Your task to perform on an android device: change the clock style Image 0: 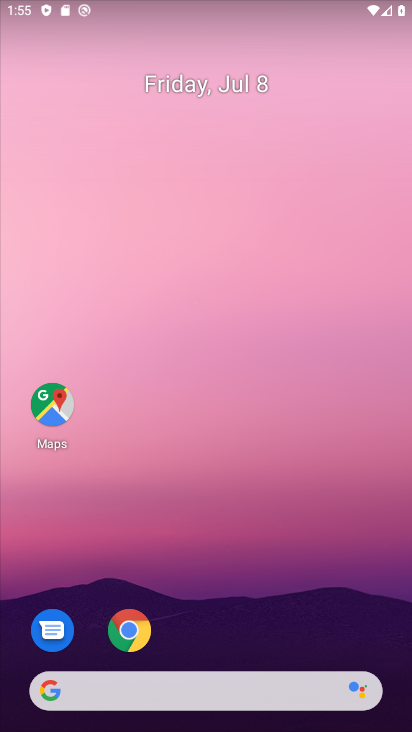
Step 0: drag from (299, 618) to (221, 132)
Your task to perform on an android device: change the clock style Image 1: 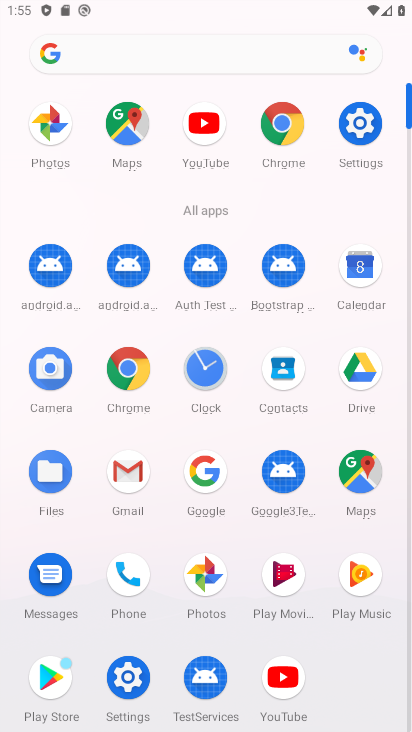
Step 1: click (202, 368)
Your task to perform on an android device: change the clock style Image 2: 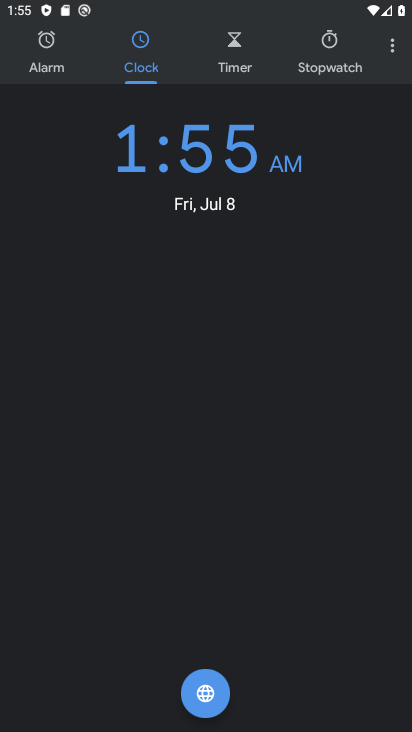
Step 2: click (394, 37)
Your task to perform on an android device: change the clock style Image 3: 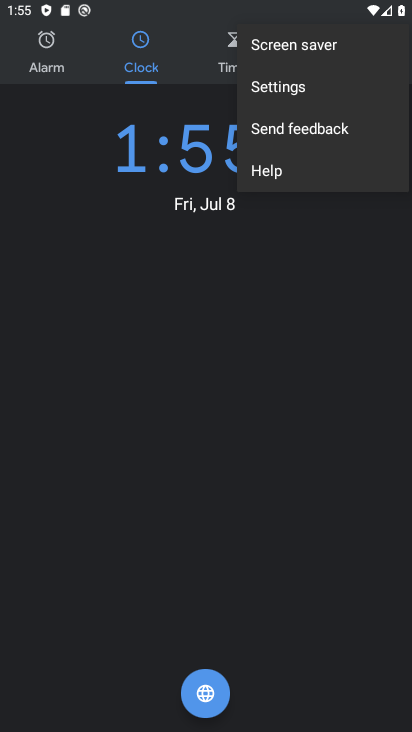
Step 3: click (285, 90)
Your task to perform on an android device: change the clock style Image 4: 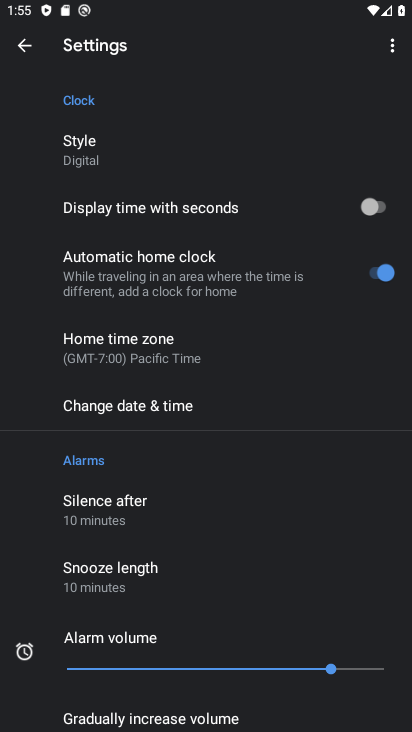
Step 4: click (87, 160)
Your task to perform on an android device: change the clock style Image 5: 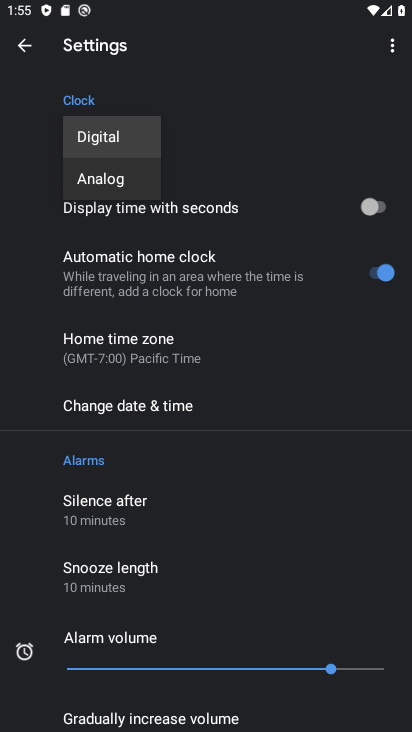
Step 5: click (84, 181)
Your task to perform on an android device: change the clock style Image 6: 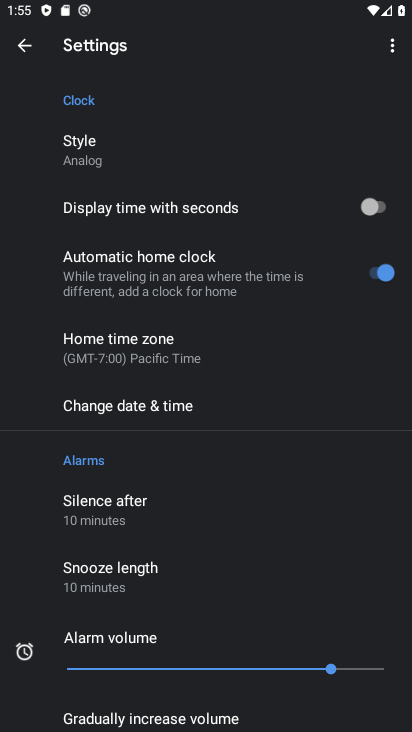
Step 6: task complete